Your task to perform on an android device: Open the web browser Image 0: 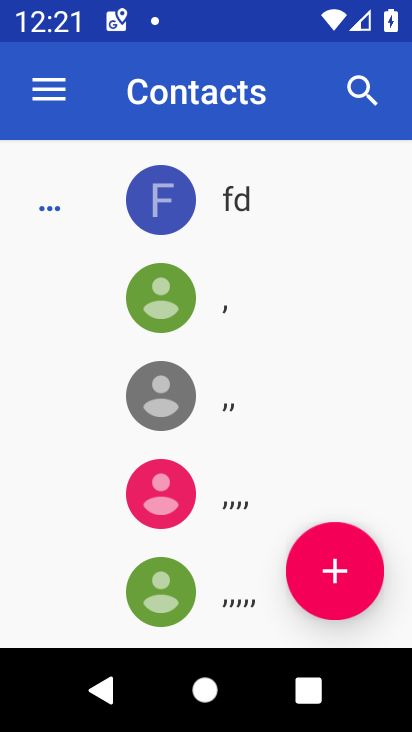
Step 0: press home button
Your task to perform on an android device: Open the web browser Image 1: 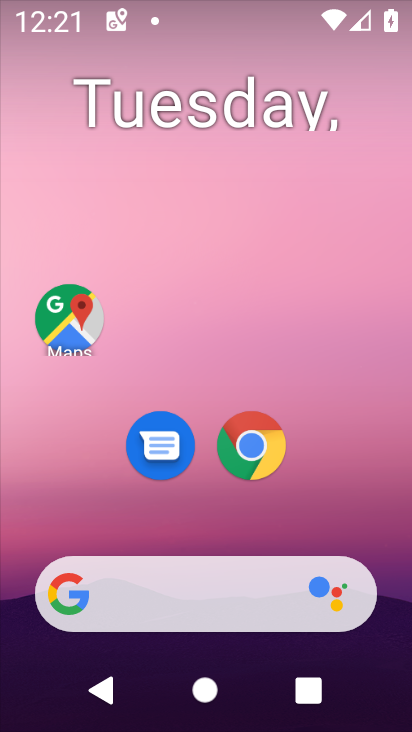
Step 1: drag from (383, 538) to (368, 130)
Your task to perform on an android device: Open the web browser Image 2: 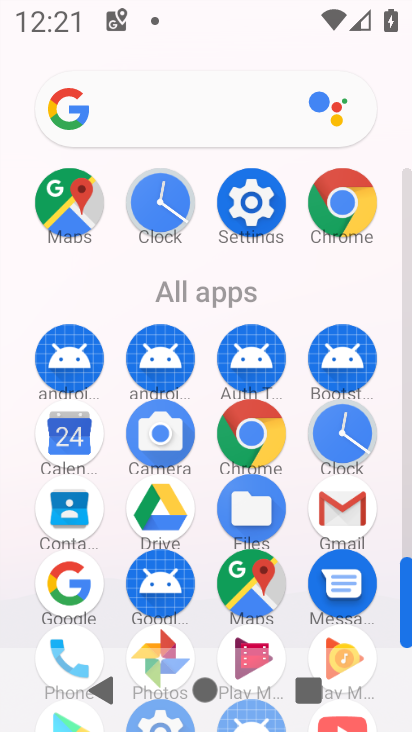
Step 2: drag from (393, 526) to (400, 294)
Your task to perform on an android device: Open the web browser Image 3: 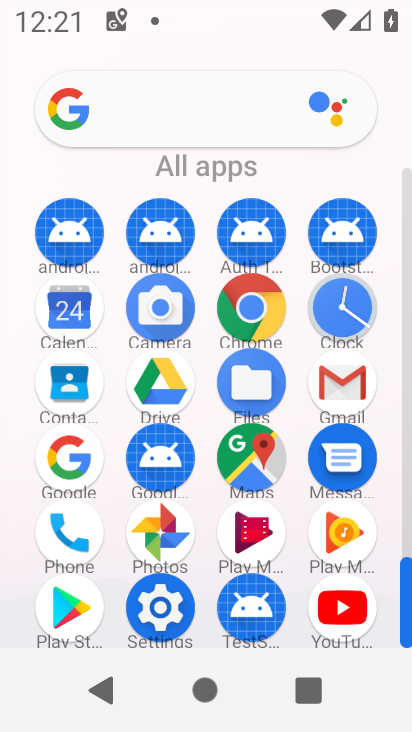
Step 3: click (234, 320)
Your task to perform on an android device: Open the web browser Image 4: 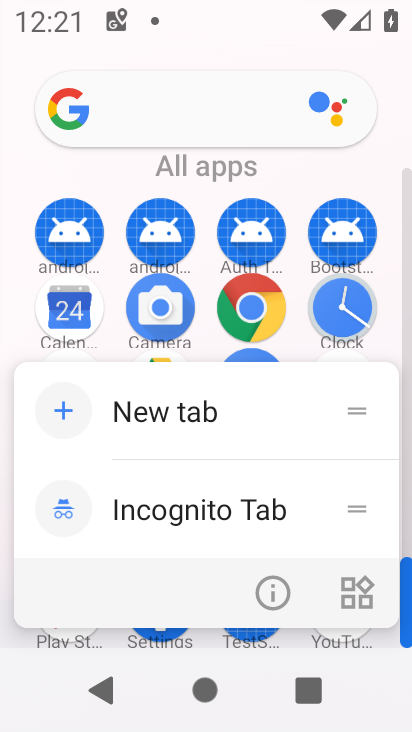
Step 4: click (234, 320)
Your task to perform on an android device: Open the web browser Image 5: 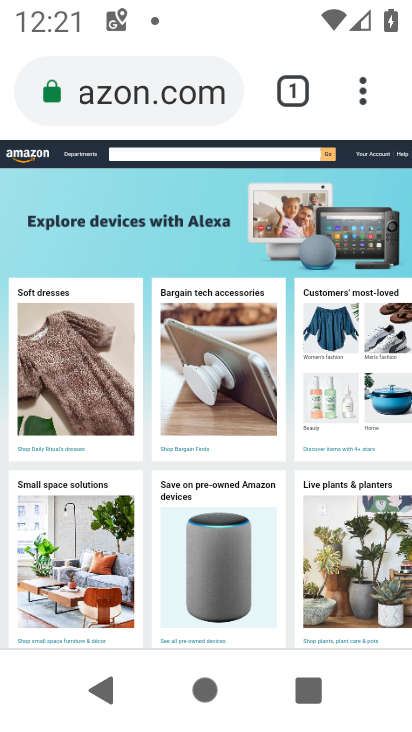
Step 5: task complete